Your task to perform on an android device: Search for jbl charge 4 on walmart, select the first entry, add it to the cart, then select checkout. Image 0: 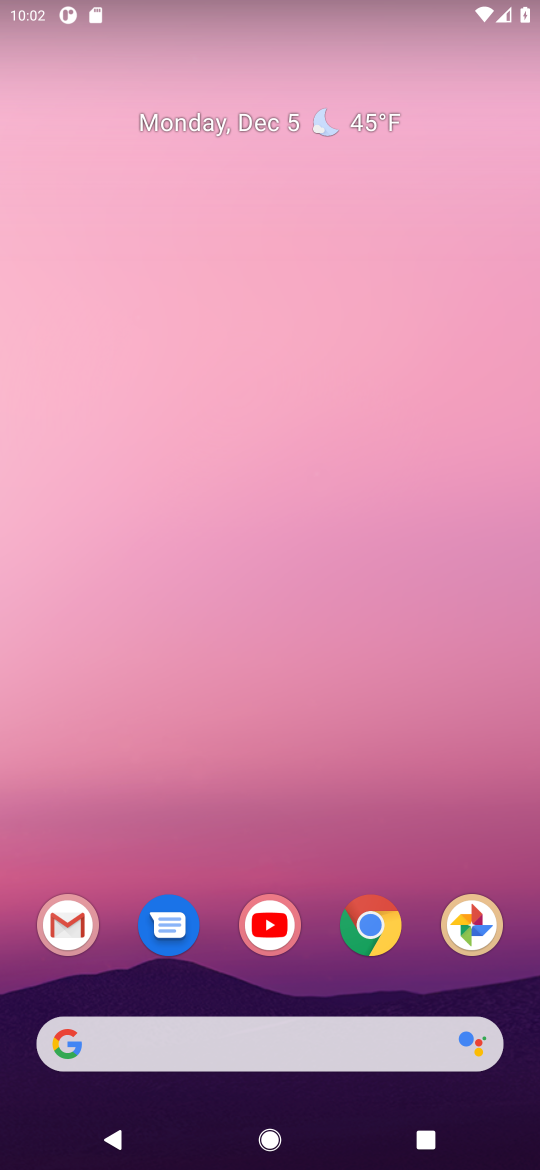
Step 0: click (368, 934)
Your task to perform on an android device: Search for jbl charge 4 on walmart, select the first entry, add it to the cart, then select checkout. Image 1: 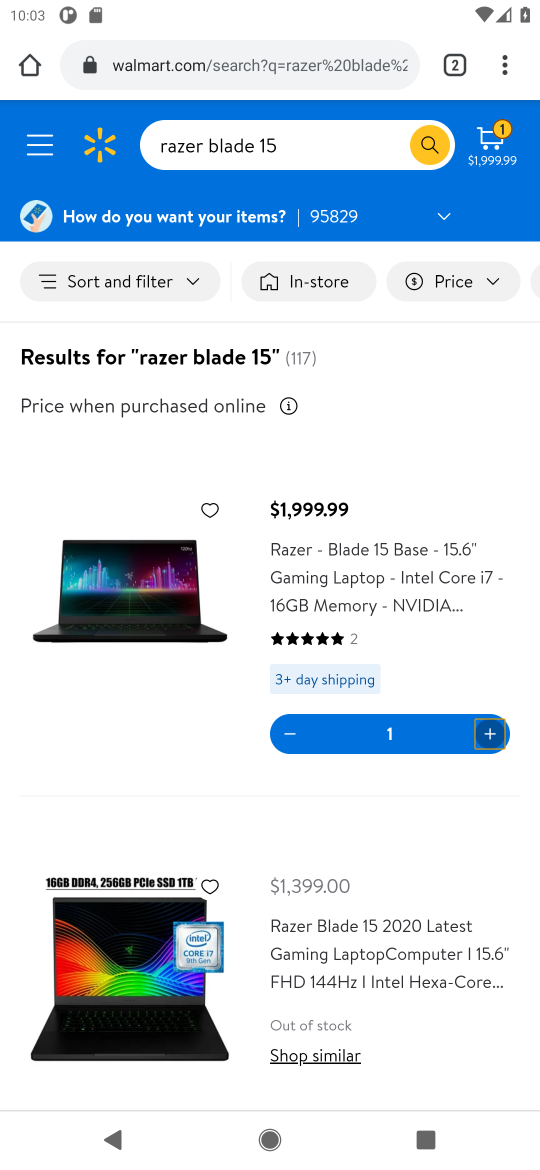
Step 1: click (298, 139)
Your task to perform on an android device: Search for jbl charge 4 on walmart, select the first entry, add it to the cart, then select checkout. Image 2: 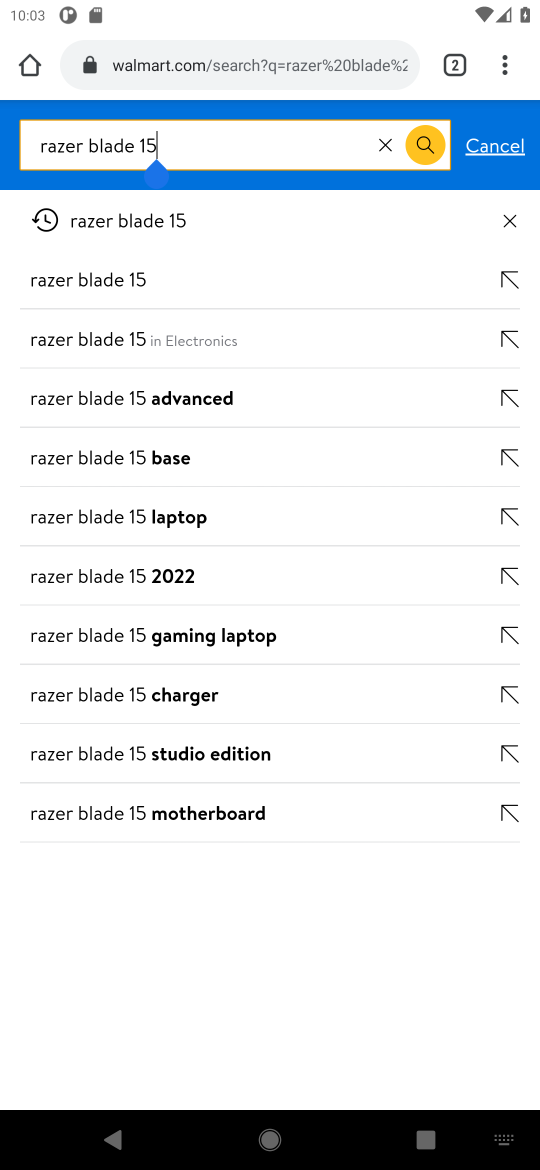
Step 2: click (378, 152)
Your task to perform on an android device: Search for jbl charge 4 on walmart, select the first entry, add it to the cart, then select checkout. Image 3: 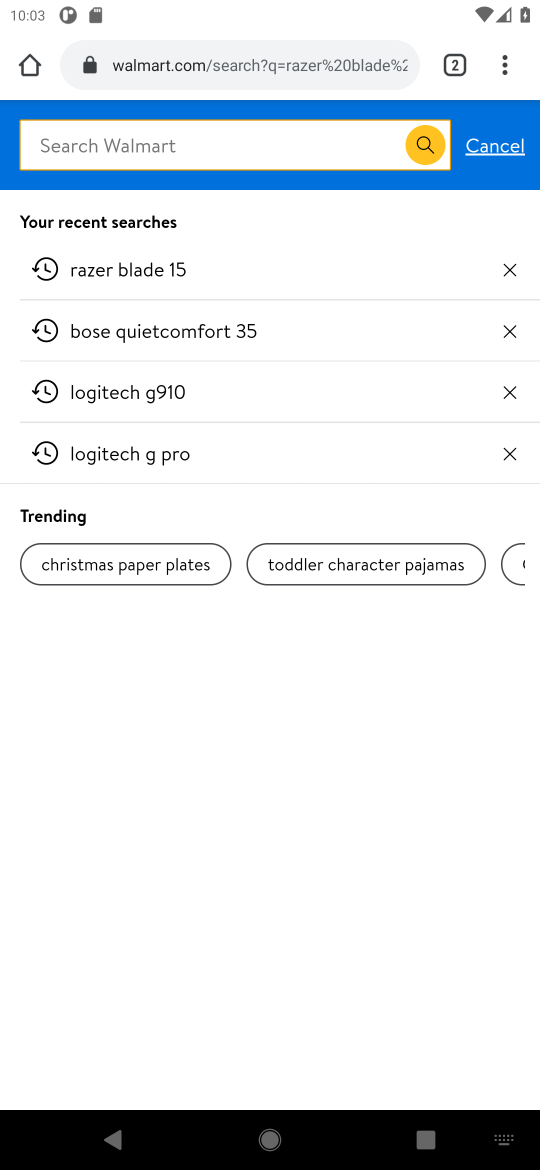
Step 3: type "jbl charge 4"
Your task to perform on an android device: Search for jbl charge 4 on walmart, select the first entry, add it to the cart, then select checkout. Image 4: 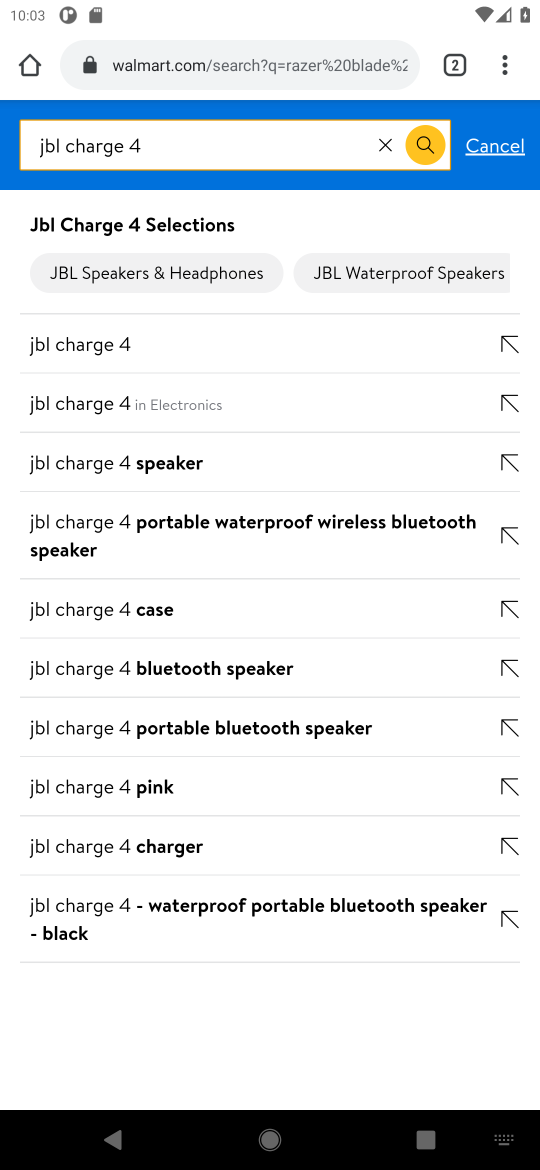
Step 4: click (94, 349)
Your task to perform on an android device: Search for jbl charge 4 on walmart, select the first entry, add it to the cart, then select checkout. Image 5: 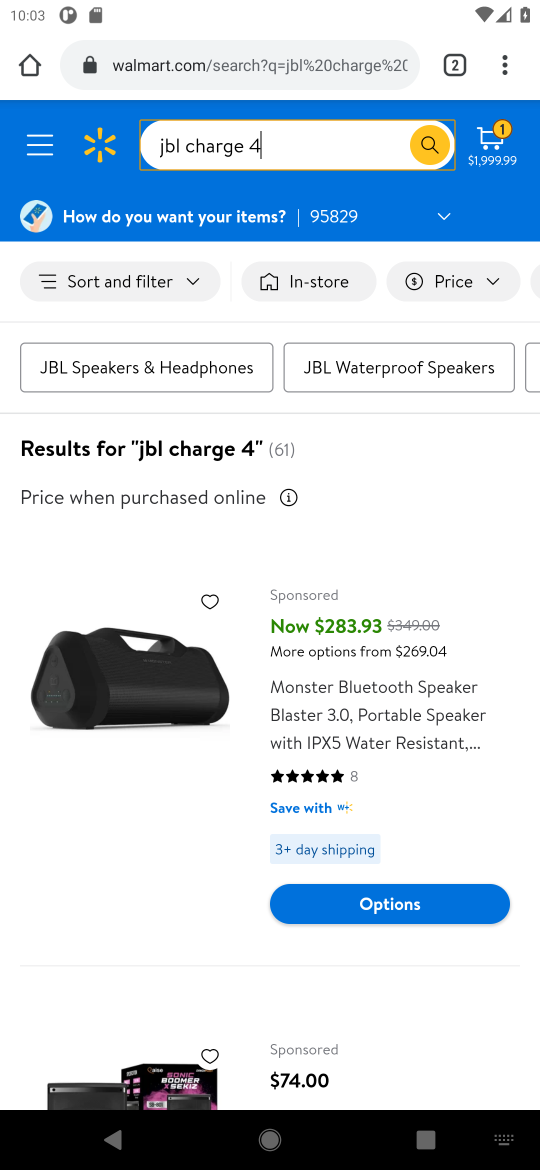
Step 5: task complete